Your task to perform on an android device: change the clock display to digital Image 0: 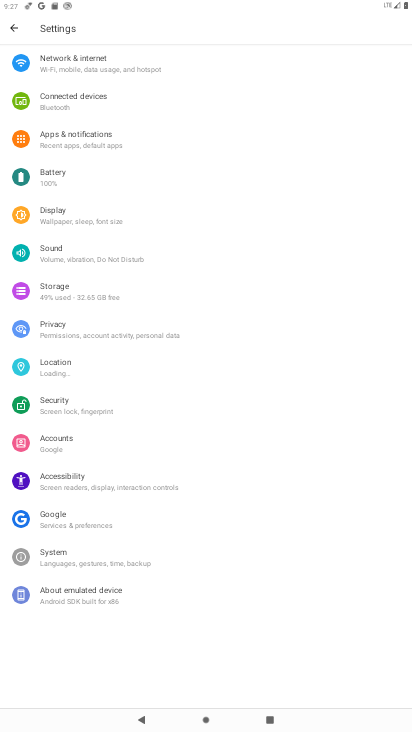
Step 0: press home button
Your task to perform on an android device: change the clock display to digital Image 1: 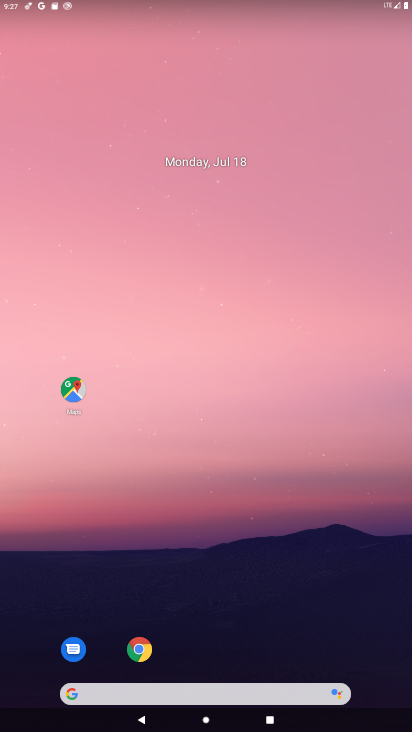
Step 1: drag from (128, 680) to (161, 421)
Your task to perform on an android device: change the clock display to digital Image 2: 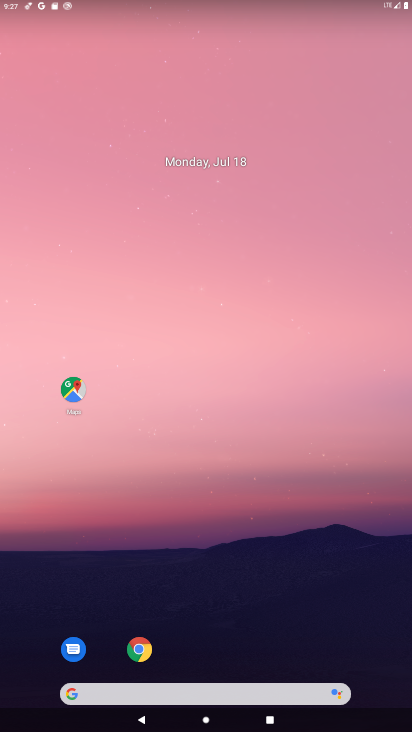
Step 2: drag from (210, 678) to (224, 302)
Your task to perform on an android device: change the clock display to digital Image 3: 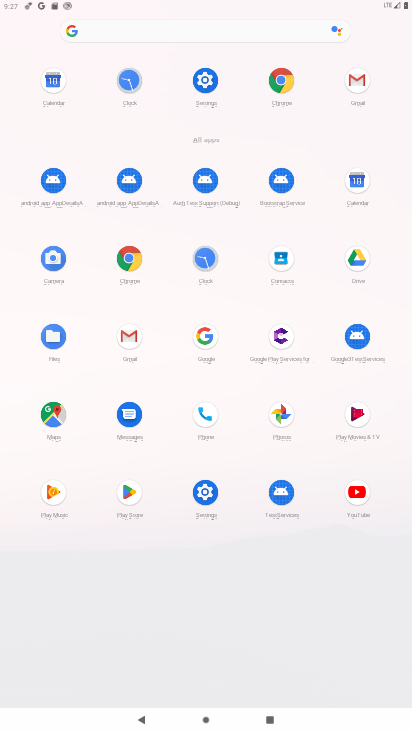
Step 3: click (207, 266)
Your task to perform on an android device: change the clock display to digital Image 4: 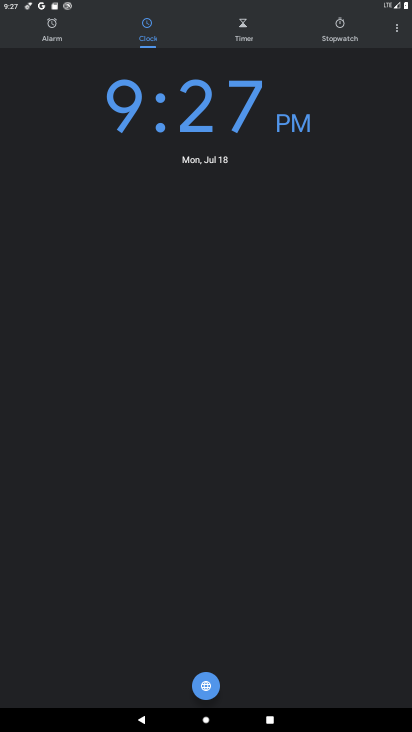
Step 4: click (395, 25)
Your task to perform on an android device: change the clock display to digital Image 5: 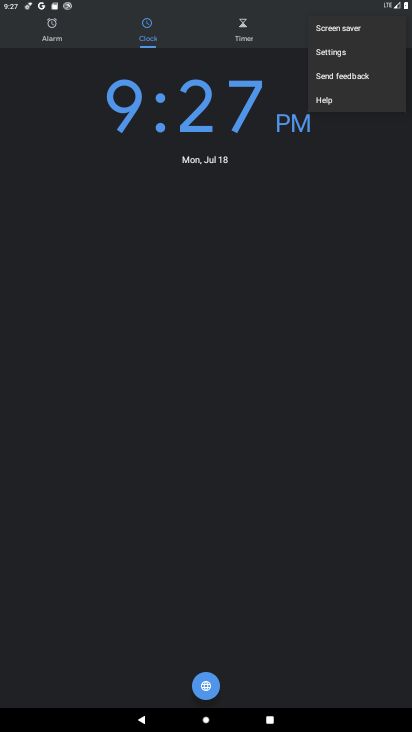
Step 5: click (321, 50)
Your task to perform on an android device: change the clock display to digital Image 6: 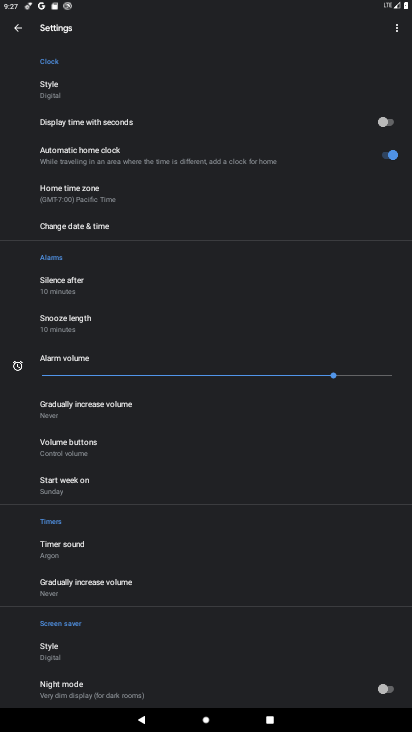
Step 6: click (45, 89)
Your task to perform on an android device: change the clock display to digital Image 7: 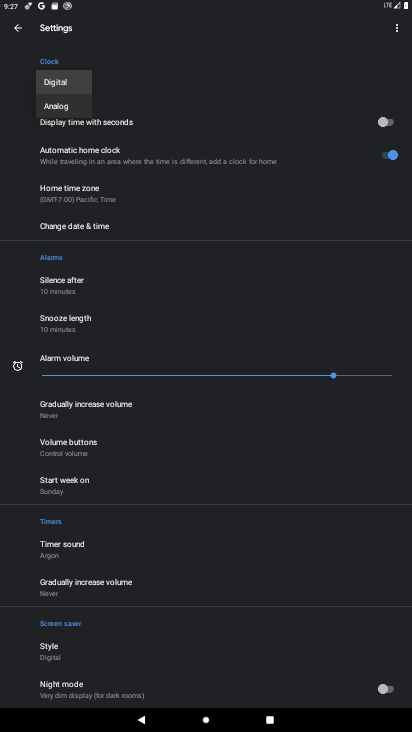
Step 7: click (64, 82)
Your task to perform on an android device: change the clock display to digital Image 8: 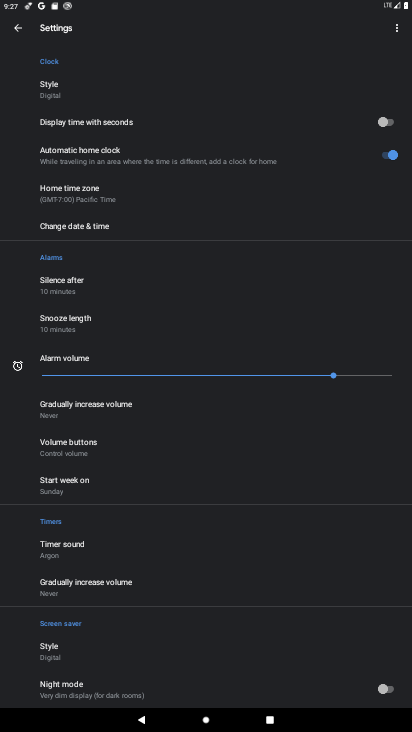
Step 8: task complete